Your task to perform on an android device: Open internet settings Image 0: 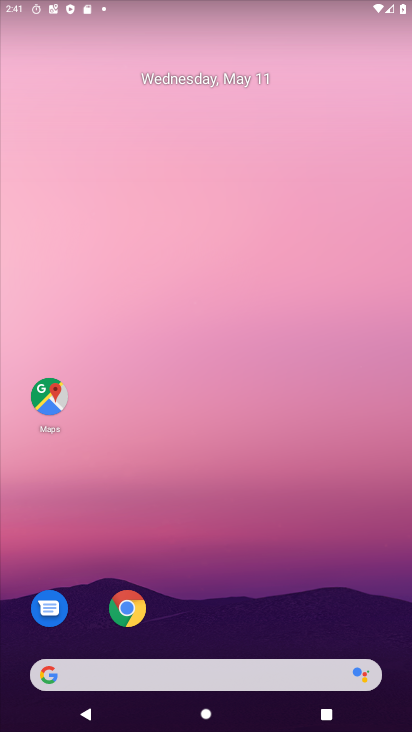
Step 0: drag from (294, 626) to (259, 214)
Your task to perform on an android device: Open internet settings Image 1: 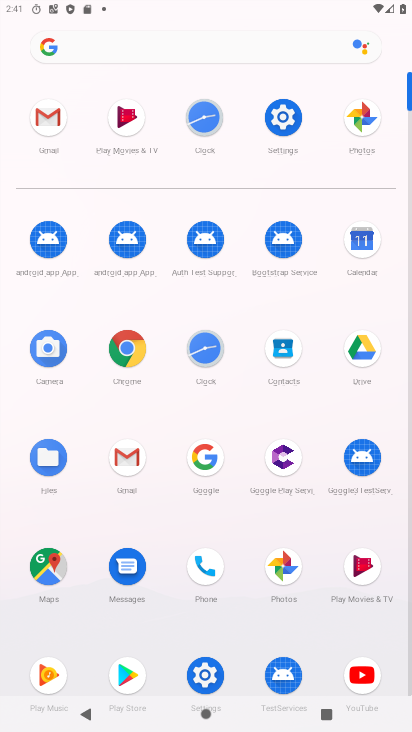
Step 1: click (288, 129)
Your task to perform on an android device: Open internet settings Image 2: 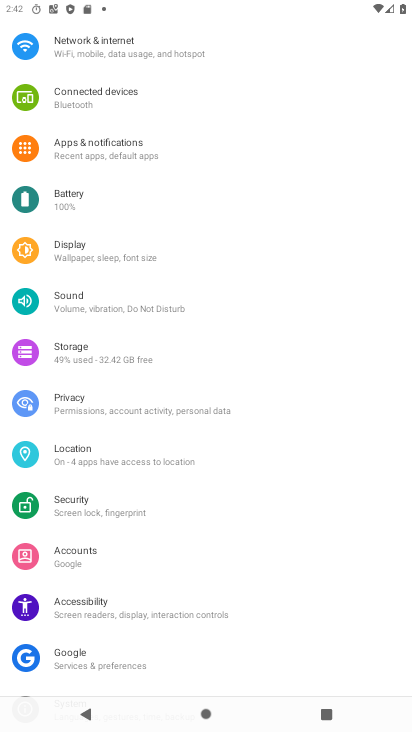
Step 2: click (232, 43)
Your task to perform on an android device: Open internet settings Image 3: 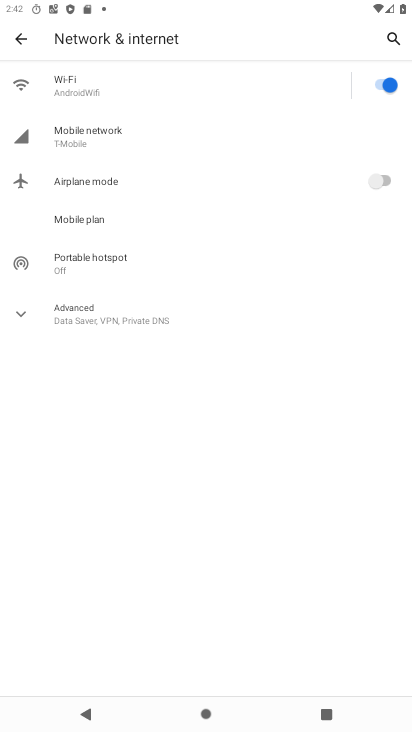
Step 3: click (99, 136)
Your task to perform on an android device: Open internet settings Image 4: 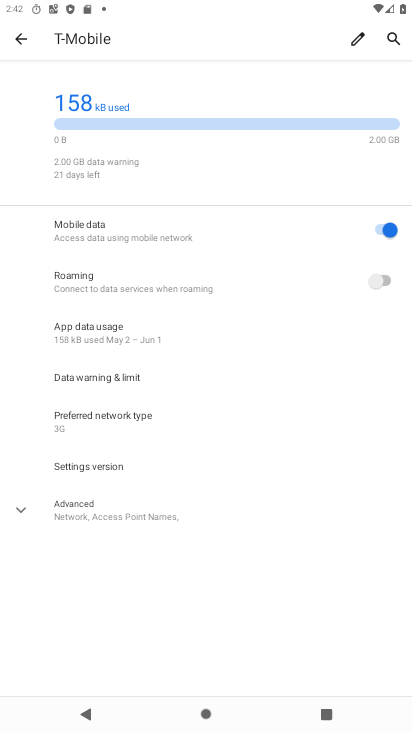
Step 4: click (130, 468)
Your task to perform on an android device: Open internet settings Image 5: 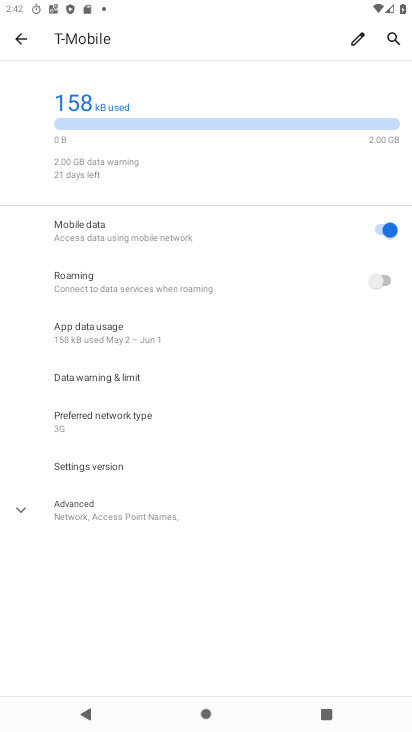
Step 5: task complete